Your task to perform on an android device: open app "LinkedIn" (install if not already installed) and enter user name: "dirt@inbox.com" and password: "receptionist" Image 0: 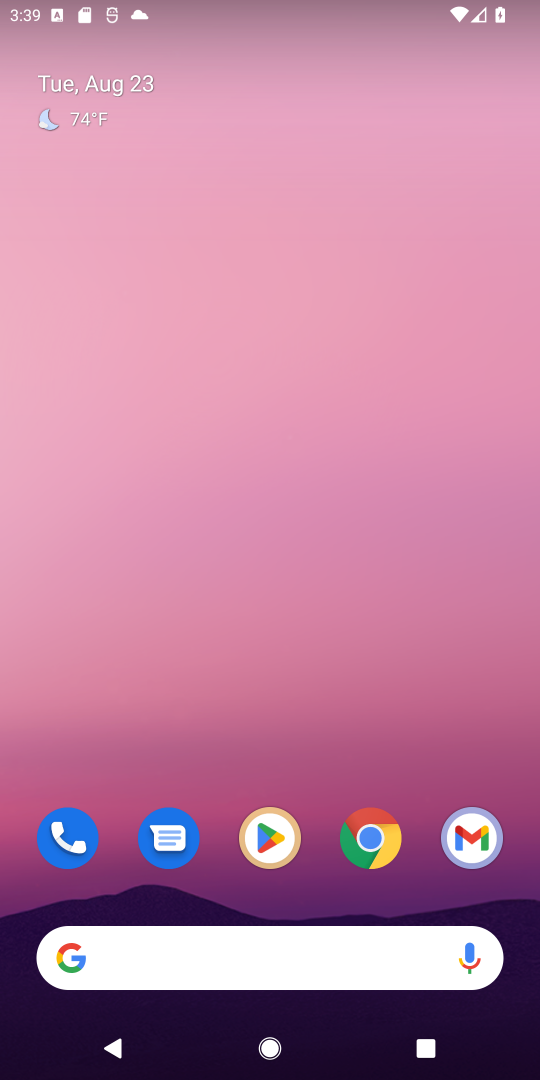
Step 0: click (280, 816)
Your task to perform on an android device: open app "LinkedIn" (install if not already installed) and enter user name: "dirt@inbox.com" and password: "receptionist" Image 1: 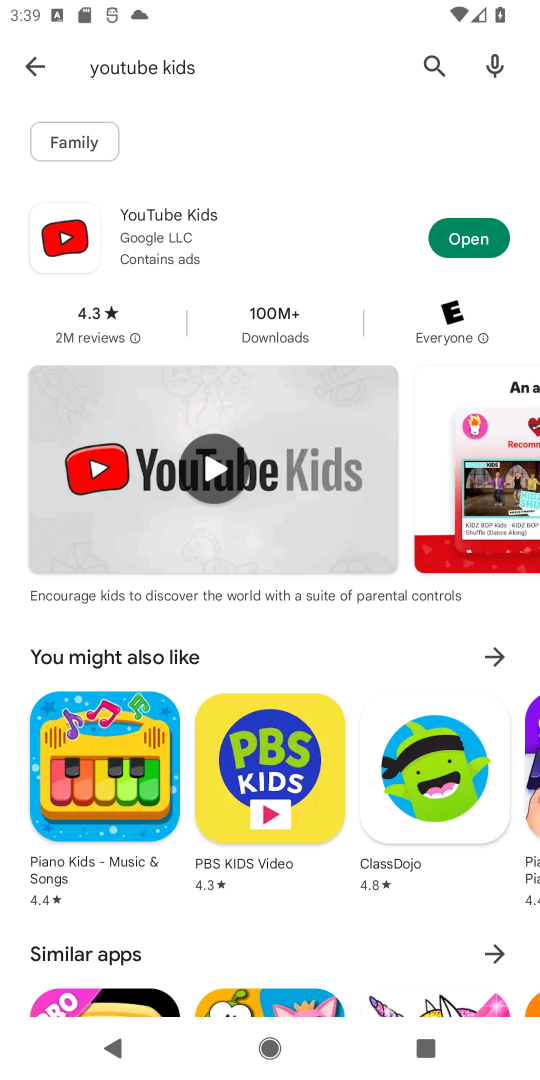
Step 1: click (38, 72)
Your task to perform on an android device: open app "LinkedIn" (install if not already installed) and enter user name: "dirt@inbox.com" and password: "receptionist" Image 2: 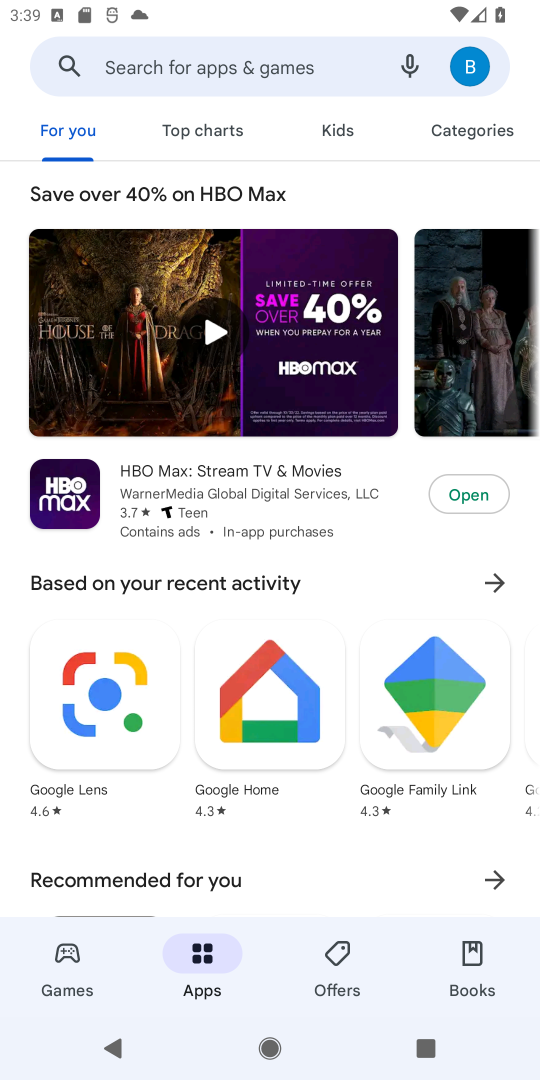
Step 2: click (148, 54)
Your task to perform on an android device: open app "LinkedIn" (install if not already installed) and enter user name: "dirt@inbox.com" and password: "receptionist" Image 3: 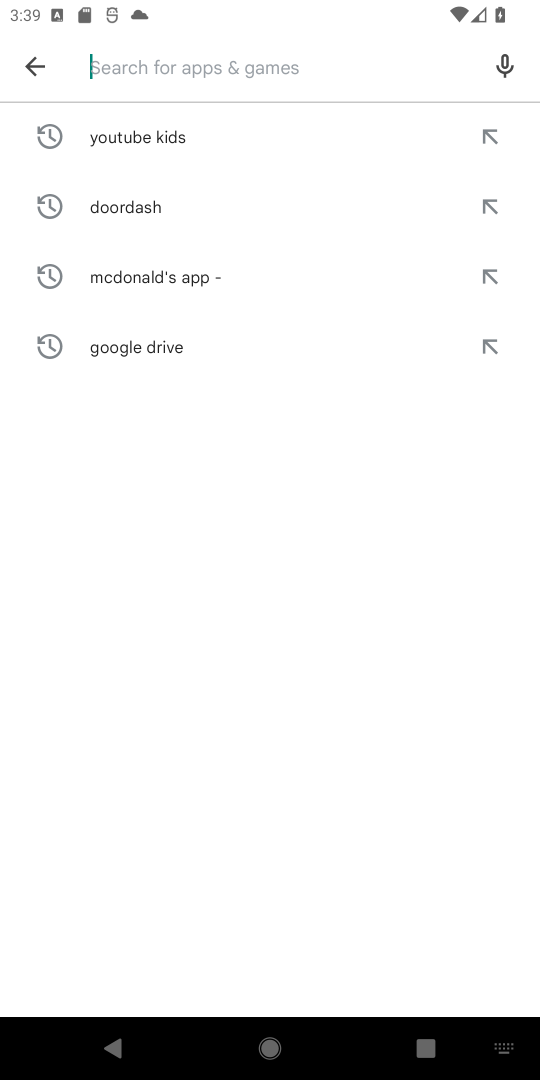
Step 3: type "LinkedIn"
Your task to perform on an android device: open app "LinkedIn" (install if not already installed) and enter user name: "dirt@inbox.com" and password: "receptionist" Image 4: 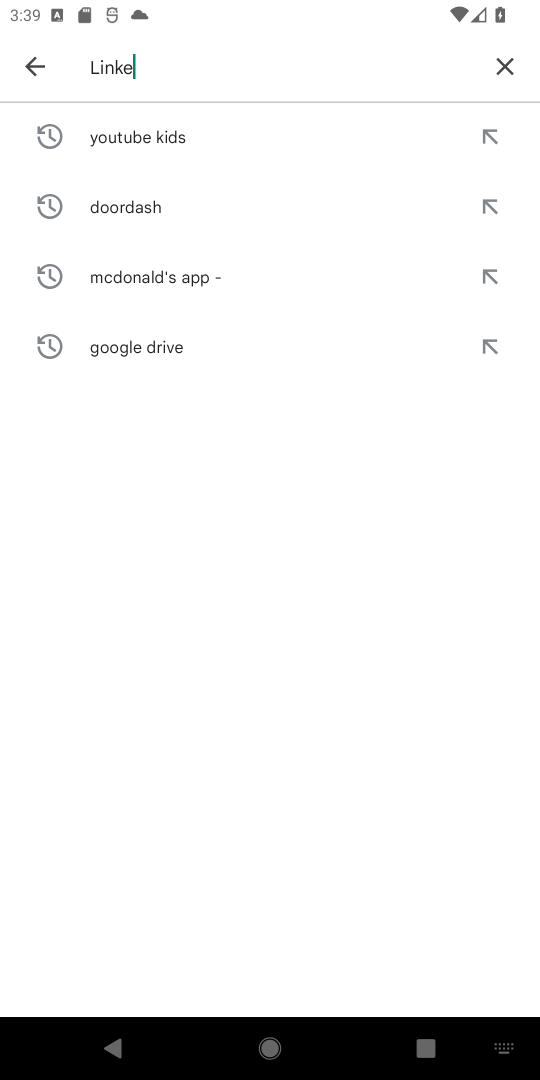
Step 4: type ""
Your task to perform on an android device: open app "LinkedIn" (install if not already installed) and enter user name: "dirt@inbox.com" and password: "receptionist" Image 5: 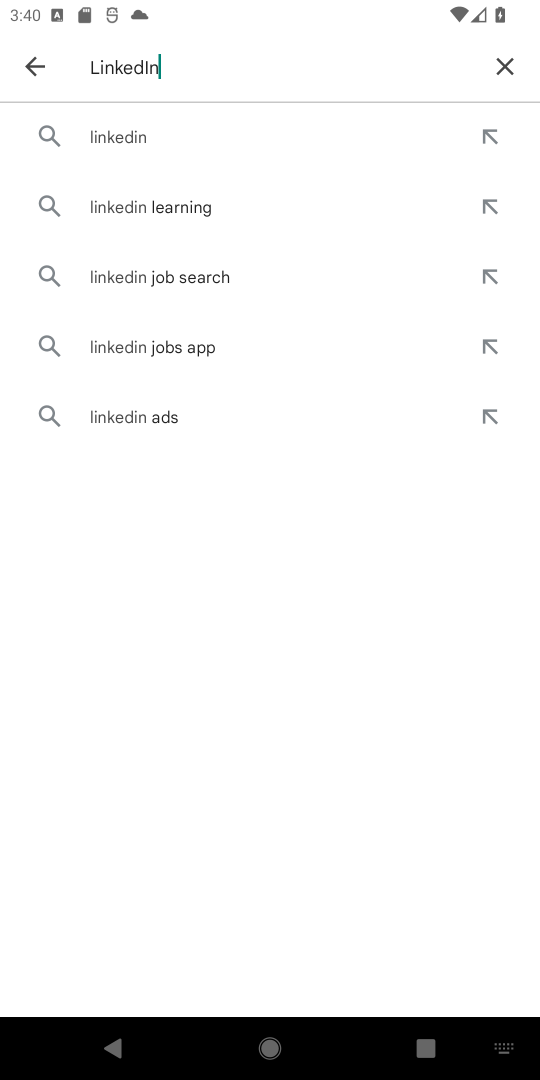
Step 5: click (100, 119)
Your task to perform on an android device: open app "LinkedIn" (install if not already installed) and enter user name: "dirt@inbox.com" and password: "receptionist" Image 6: 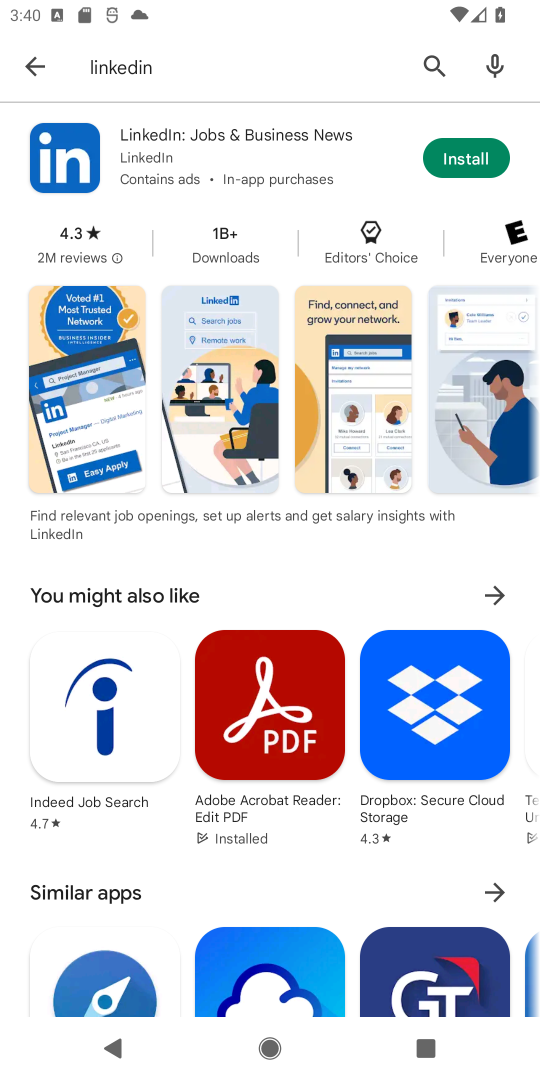
Step 6: click (465, 155)
Your task to perform on an android device: open app "LinkedIn" (install if not already installed) and enter user name: "dirt@inbox.com" and password: "receptionist" Image 7: 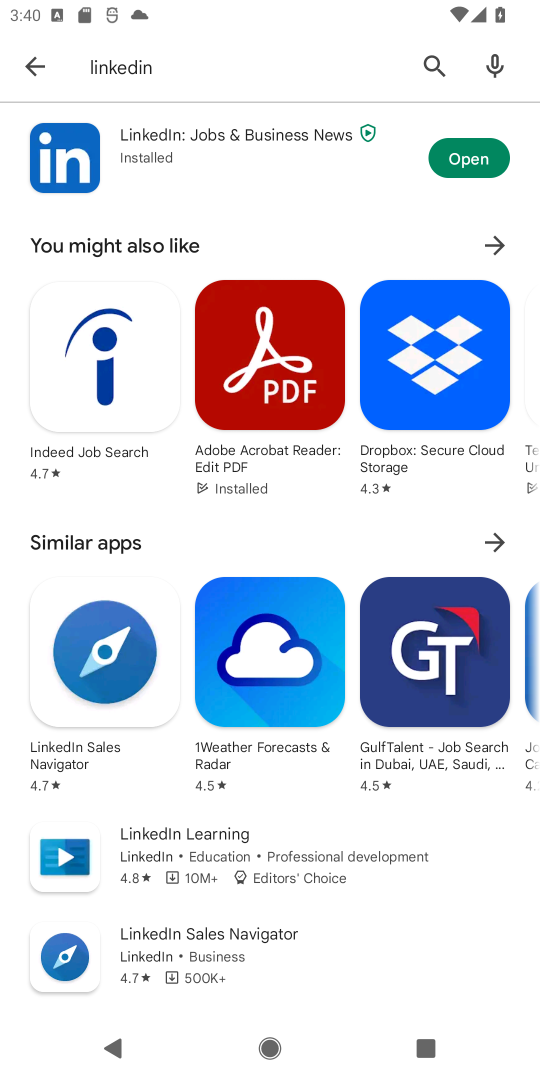
Step 7: click (464, 154)
Your task to perform on an android device: open app "LinkedIn" (install if not already installed) and enter user name: "dirt@inbox.com" and password: "receptionist" Image 8: 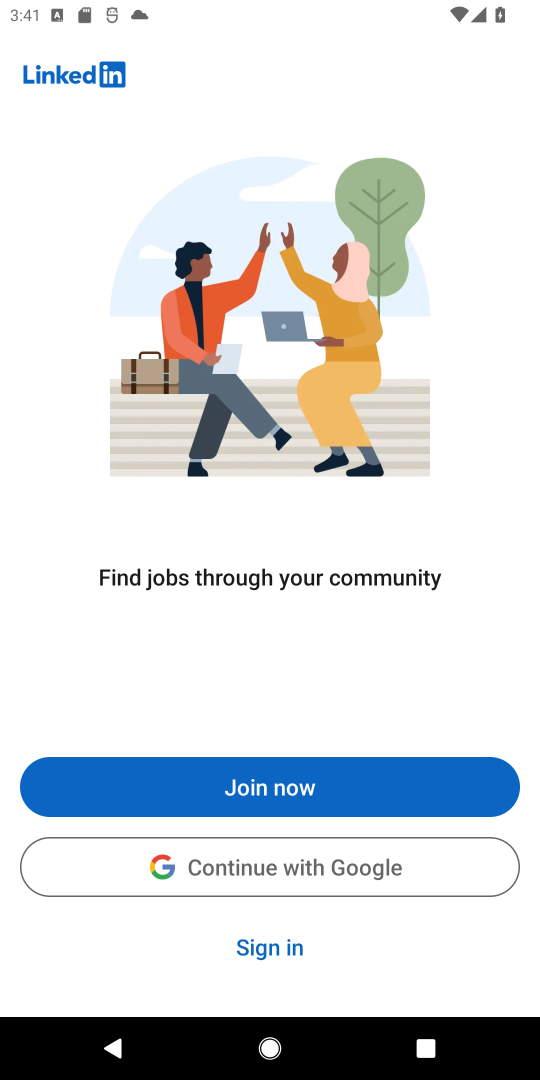
Step 8: click (253, 958)
Your task to perform on an android device: open app "LinkedIn" (install if not already installed) and enter user name: "dirt@inbox.com" and password: "receptionist" Image 9: 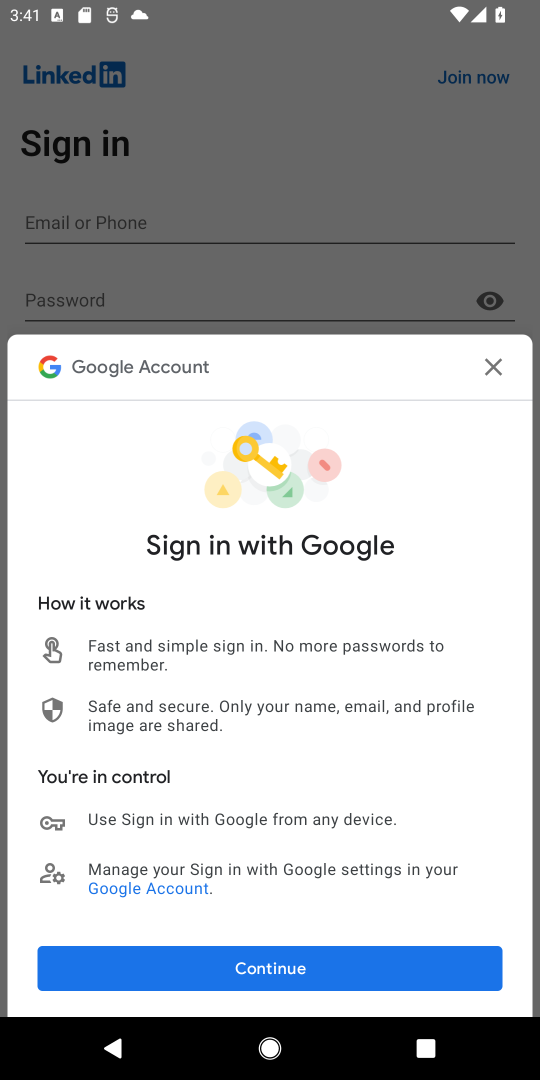
Step 9: click (256, 978)
Your task to perform on an android device: open app "LinkedIn" (install if not already installed) and enter user name: "dirt@inbox.com" and password: "receptionist" Image 10: 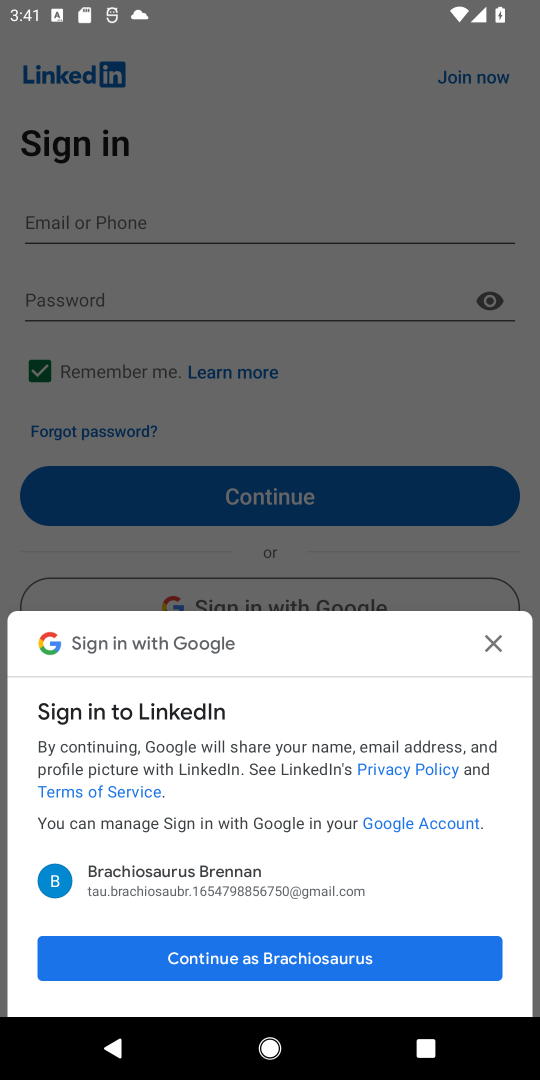
Step 10: click (279, 947)
Your task to perform on an android device: open app "LinkedIn" (install if not already installed) and enter user name: "dirt@inbox.com" and password: "receptionist" Image 11: 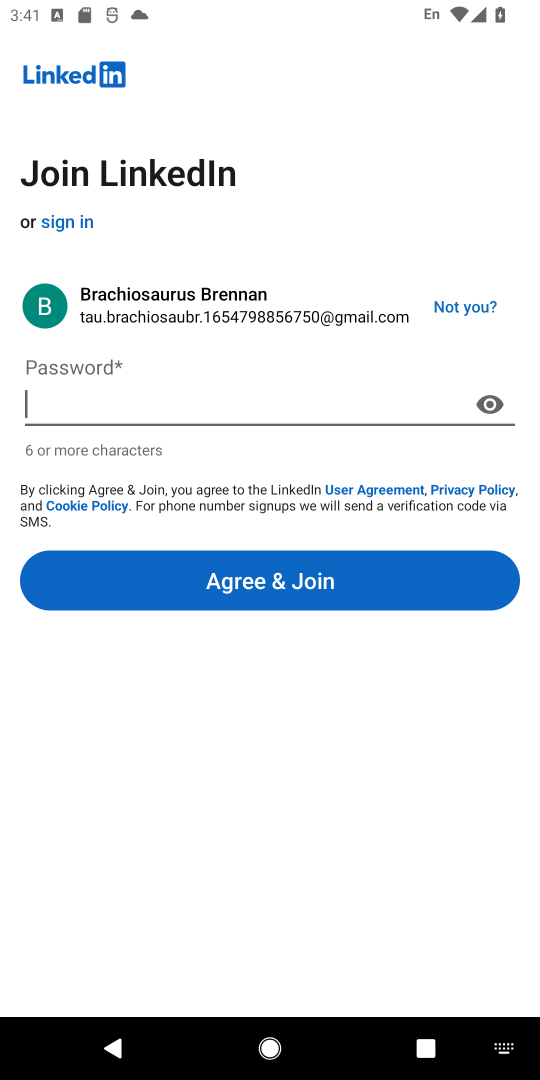
Step 11: type "receptionist"
Your task to perform on an android device: open app "LinkedIn" (install if not already installed) and enter user name: "dirt@inbox.com" and password: "receptionist" Image 12: 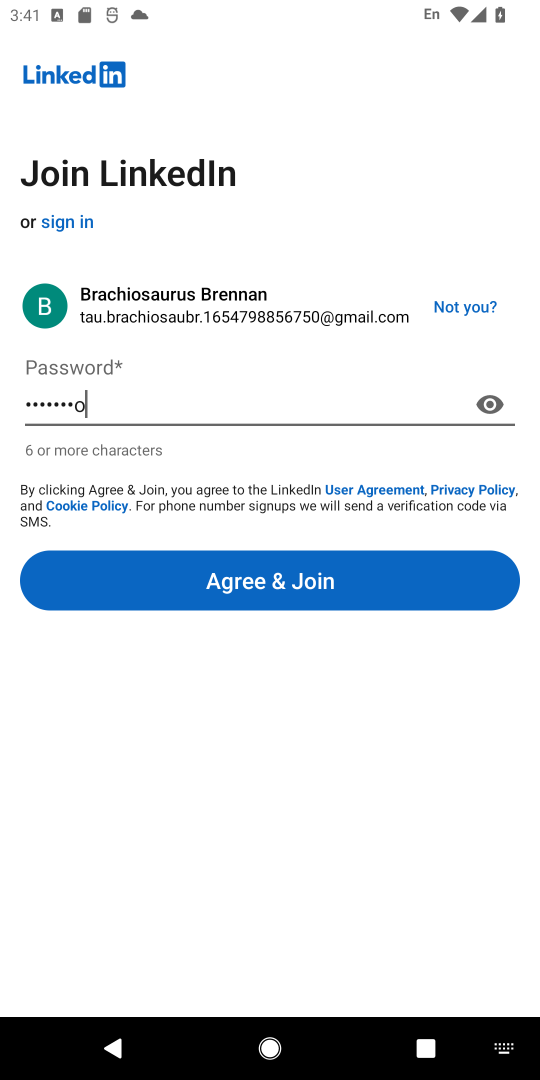
Step 12: type ""
Your task to perform on an android device: open app "LinkedIn" (install if not already installed) and enter user name: "dirt@inbox.com" and password: "receptionist" Image 13: 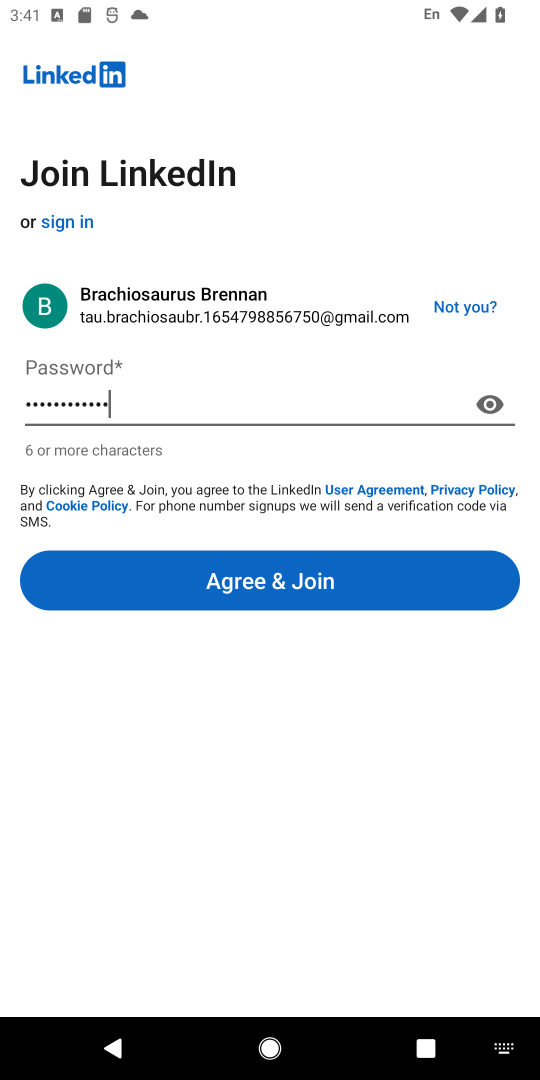
Step 13: task complete